Your task to perform on an android device: What's the weather? Image 0: 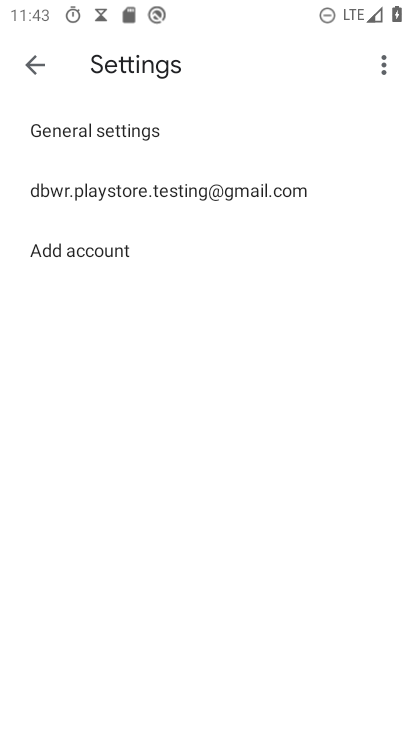
Step 0: press back button
Your task to perform on an android device: What's the weather? Image 1: 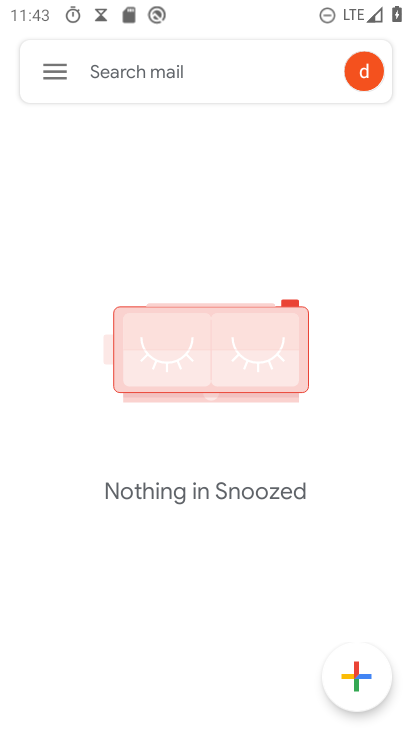
Step 1: press home button
Your task to perform on an android device: What's the weather? Image 2: 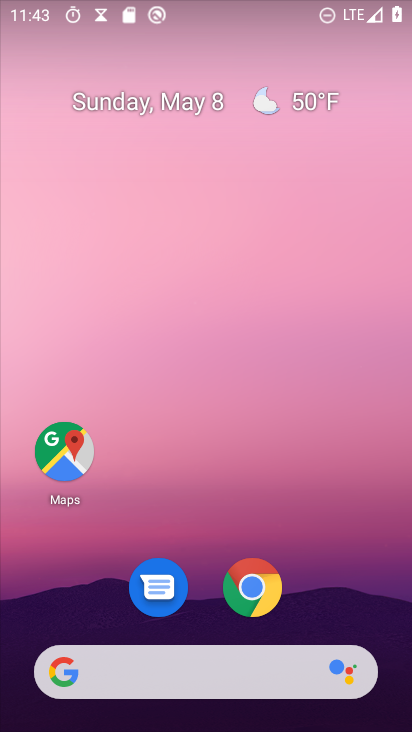
Step 2: click (253, 586)
Your task to perform on an android device: What's the weather? Image 3: 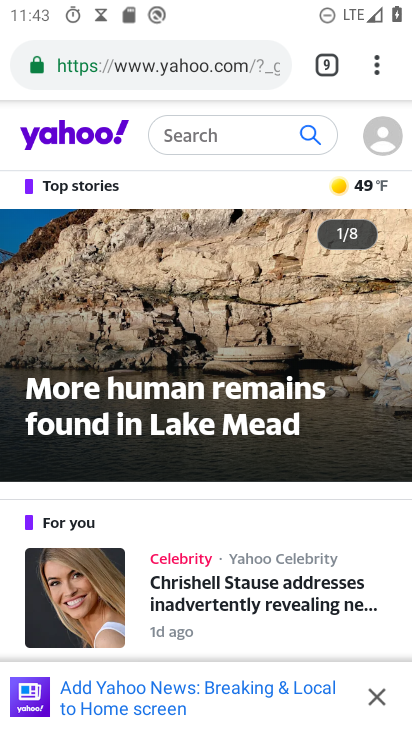
Step 3: click (330, 65)
Your task to perform on an android device: What's the weather? Image 4: 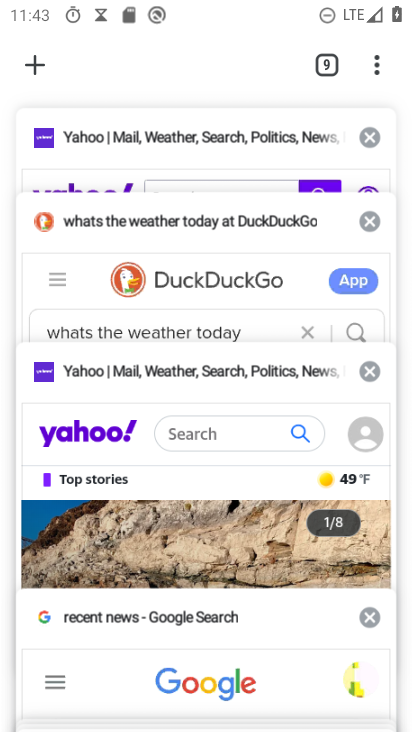
Step 4: click (29, 61)
Your task to perform on an android device: What's the weather? Image 5: 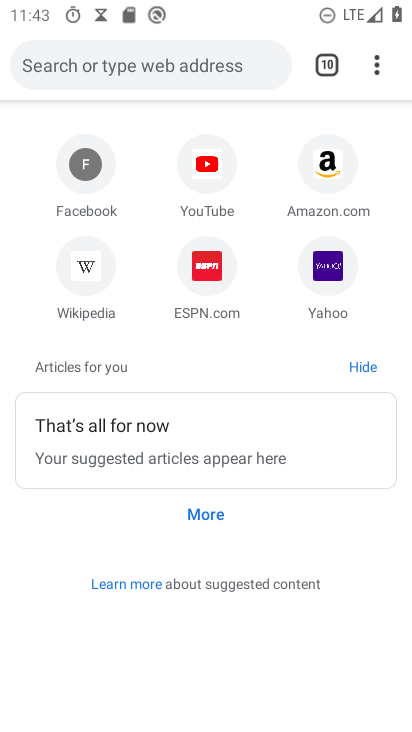
Step 5: click (119, 73)
Your task to perform on an android device: What's the weather? Image 6: 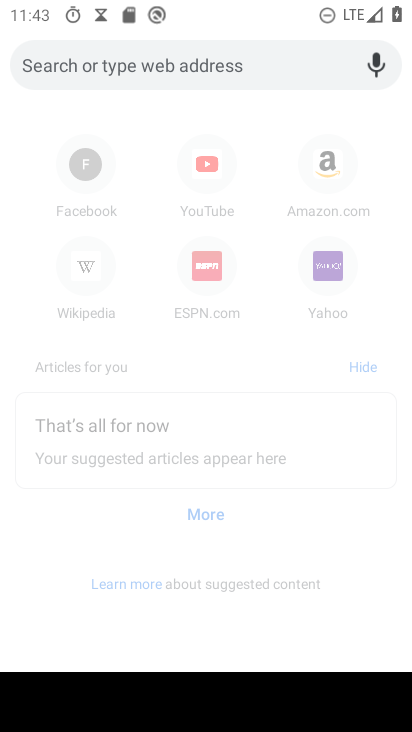
Step 6: type "weather"
Your task to perform on an android device: What's the weather? Image 7: 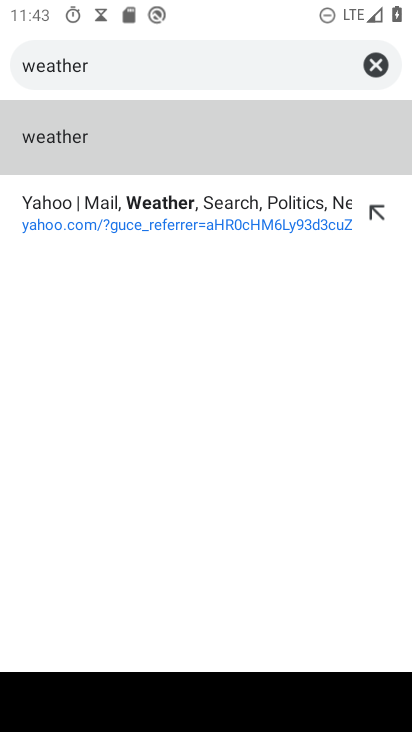
Step 7: click (83, 132)
Your task to perform on an android device: What's the weather? Image 8: 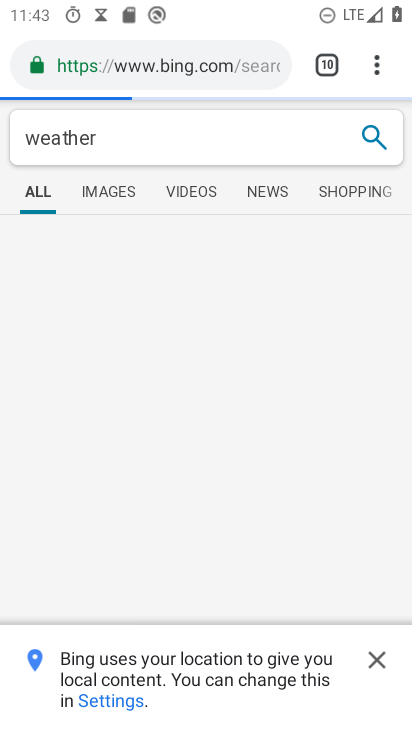
Step 8: task complete